Your task to perform on an android device: change alarm snooze length Image 0: 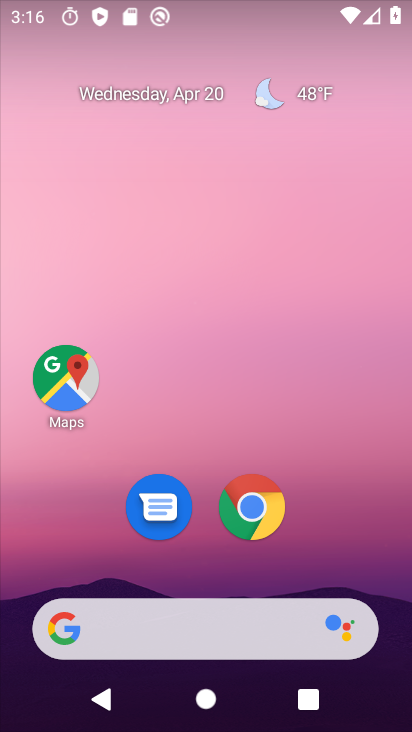
Step 0: drag from (249, 599) to (213, 80)
Your task to perform on an android device: change alarm snooze length Image 1: 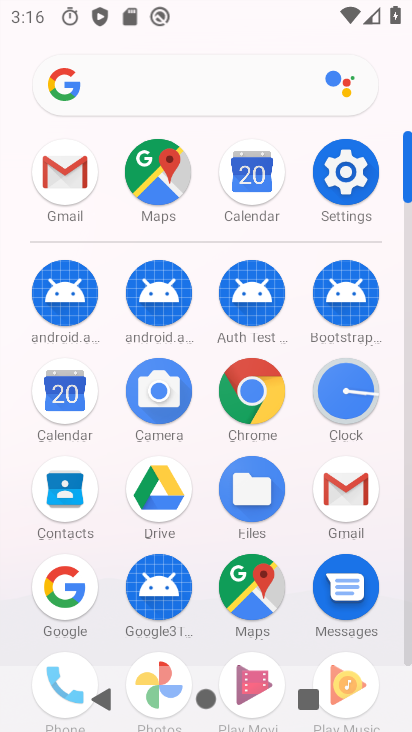
Step 1: click (363, 405)
Your task to perform on an android device: change alarm snooze length Image 2: 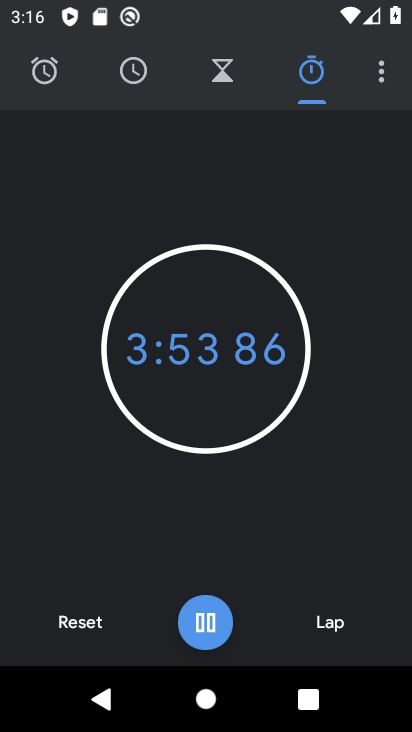
Step 2: click (391, 59)
Your task to perform on an android device: change alarm snooze length Image 3: 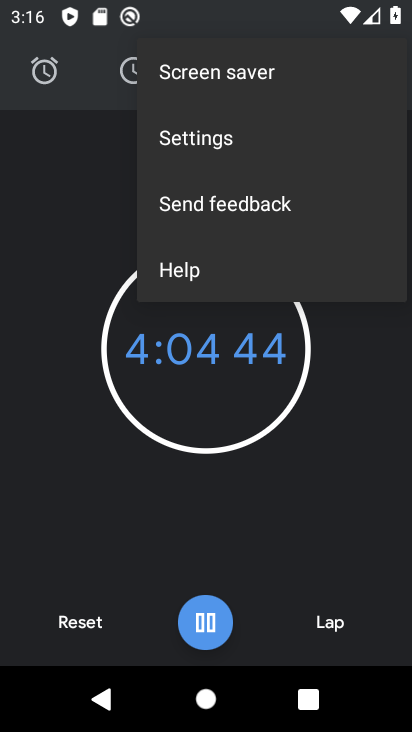
Step 3: click (198, 141)
Your task to perform on an android device: change alarm snooze length Image 4: 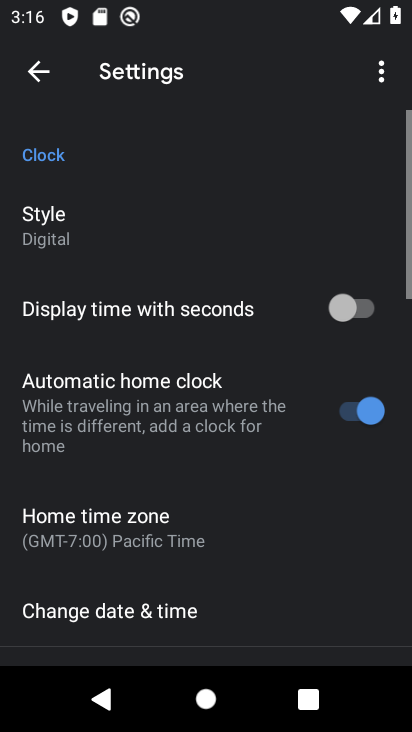
Step 4: drag from (212, 468) to (153, 10)
Your task to perform on an android device: change alarm snooze length Image 5: 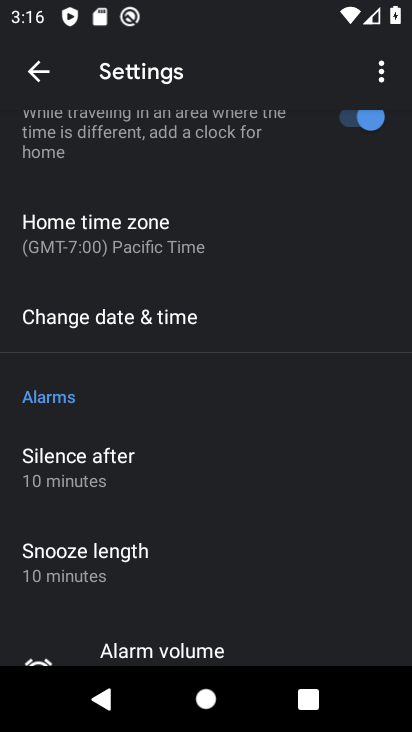
Step 5: drag from (178, 514) to (105, 96)
Your task to perform on an android device: change alarm snooze length Image 6: 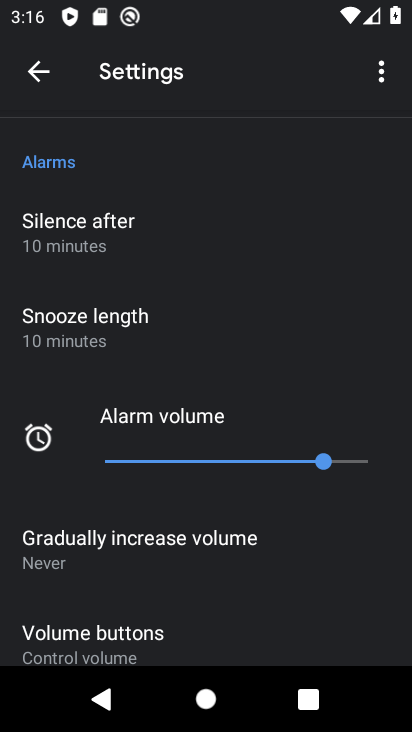
Step 6: click (91, 309)
Your task to perform on an android device: change alarm snooze length Image 7: 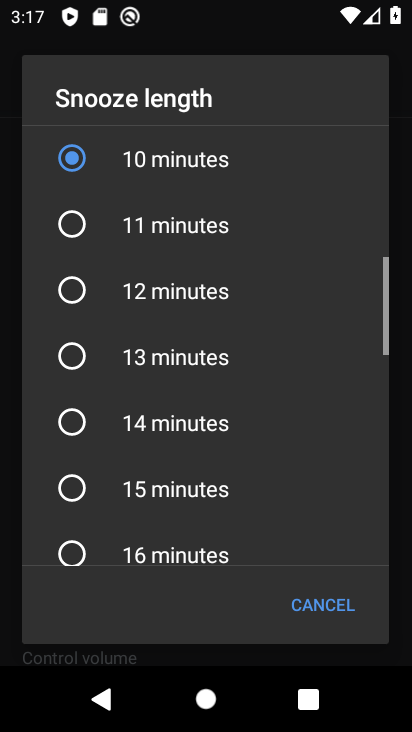
Step 7: click (175, 487)
Your task to perform on an android device: change alarm snooze length Image 8: 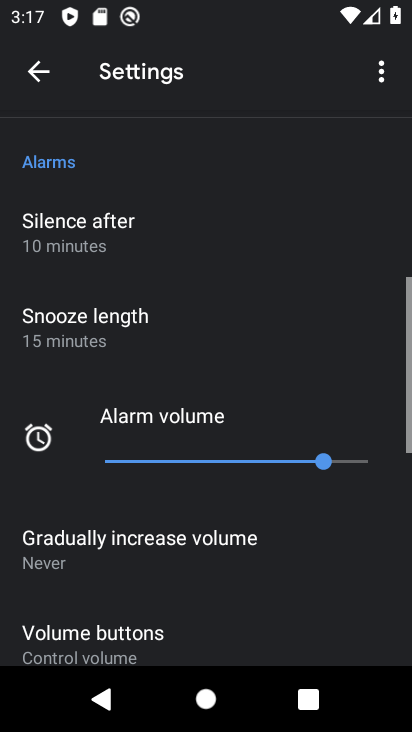
Step 8: task complete